Your task to perform on an android device: Go to sound settings Image 0: 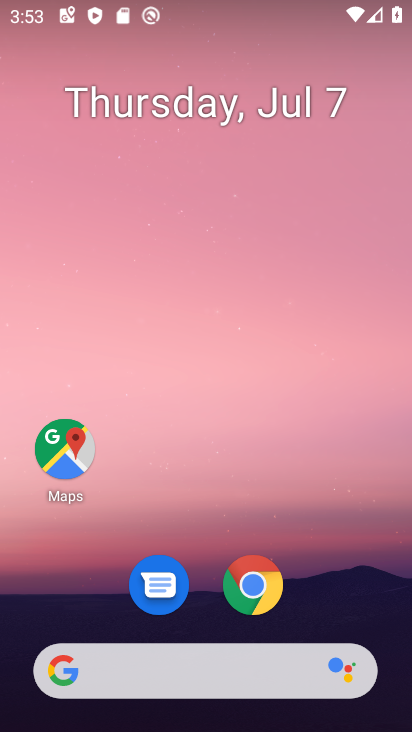
Step 0: drag from (309, 574) to (247, 26)
Your task to perform on an android device: Go to sound settings Image 1: 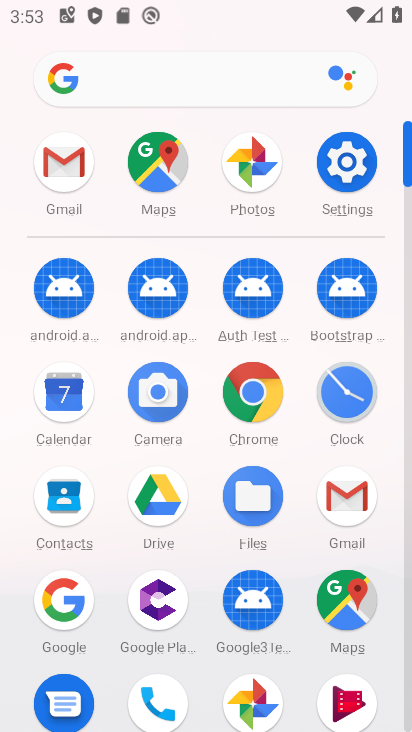
Step 1: click (337, 163)
Your task to perform on an android device: Go to sound settings Image 2: 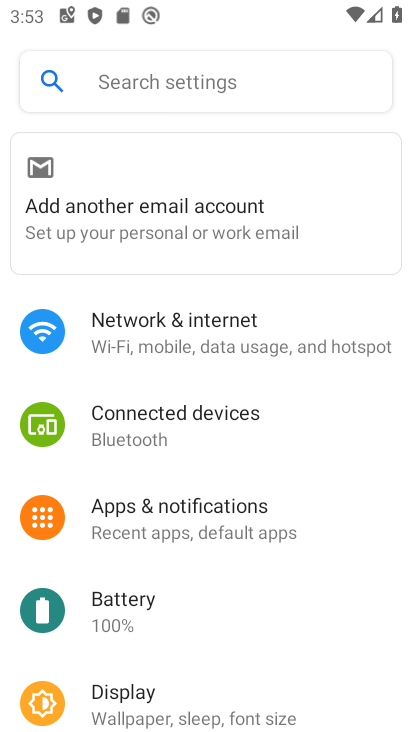
Step 2: drag from (220, 572) to (222, 199)
Your task to perform on an android device: Go to sound settings Image 3: 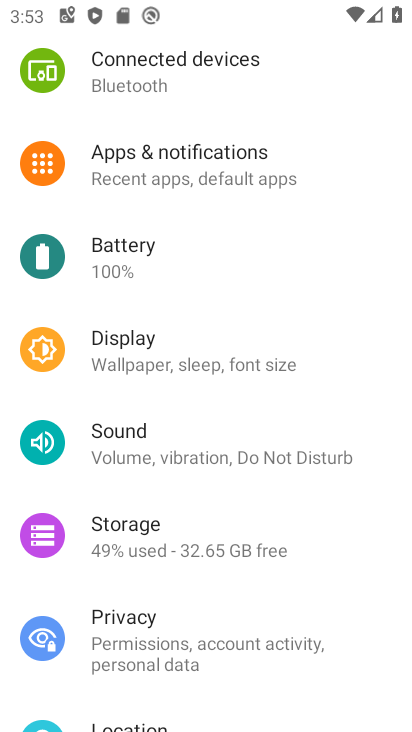
Step 3: click (226, 446)
Your task to perform on an android device: Go to sound settings Image 4: 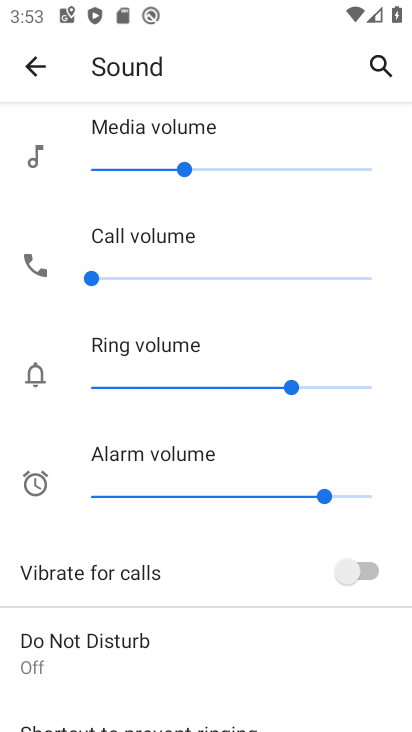
Step 4: task complete